Your task to perform on an android device: toggle javascript in the chrome app Image 0: 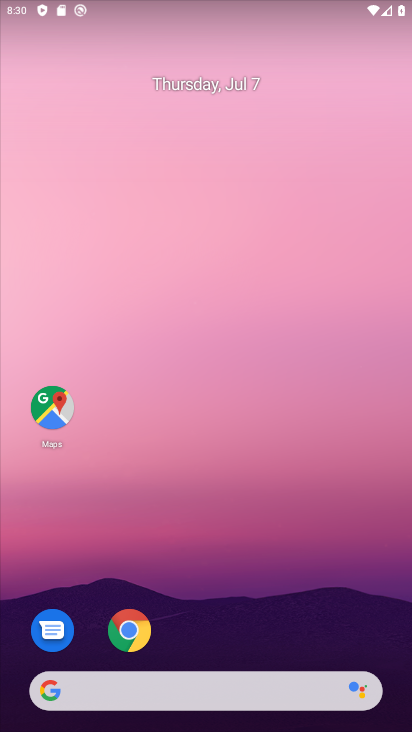
Step 0: drag from (204, 606) to (214, 197)
Your task to perform on an android device: toggle javascript in the chrome app Image 1: 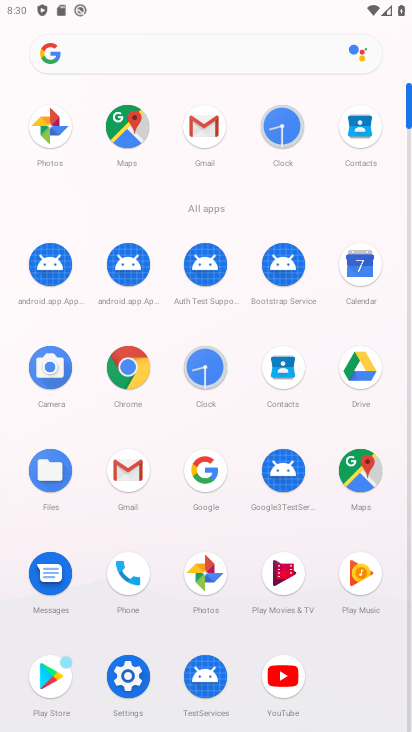
Step 1: click (119, 366)
Your task to perform on an android device: toggle javascript in the chrome app Image 2: 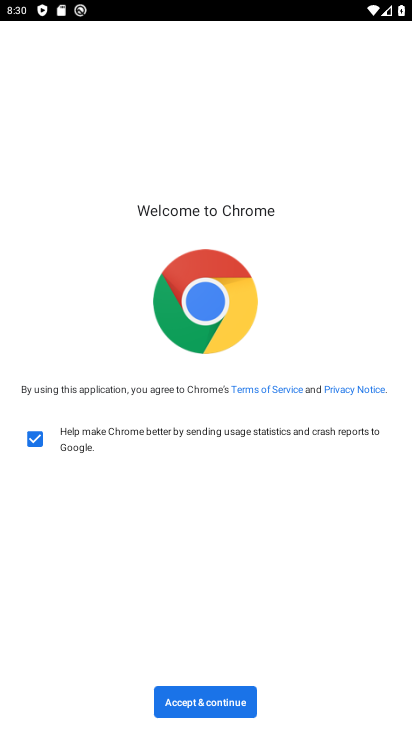
Step 2: click (192, 712)
Your task to perform on an android device: toggle javascript in the chrome app Image 3: 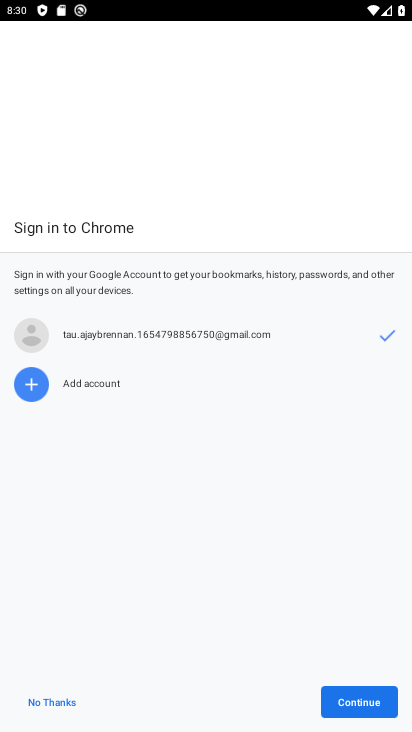
Step 3: click (329, 691)
Your task to perform on an android device: toggle javascript in the chrome app Image 4: 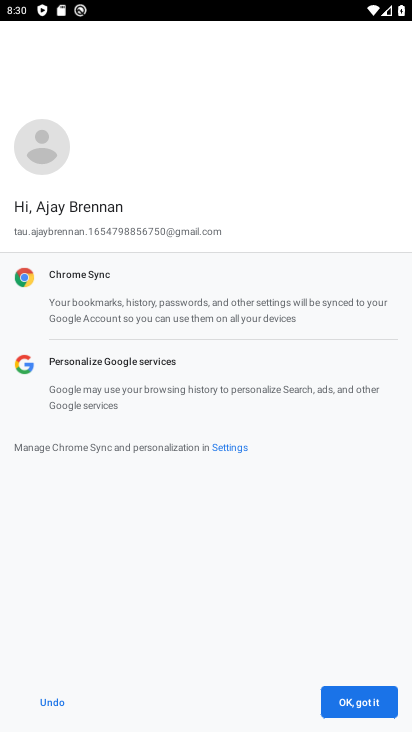
Step 4: click (358, 707)
Your task to perform on an android device: toggle javascript in the chrome app Image 5: 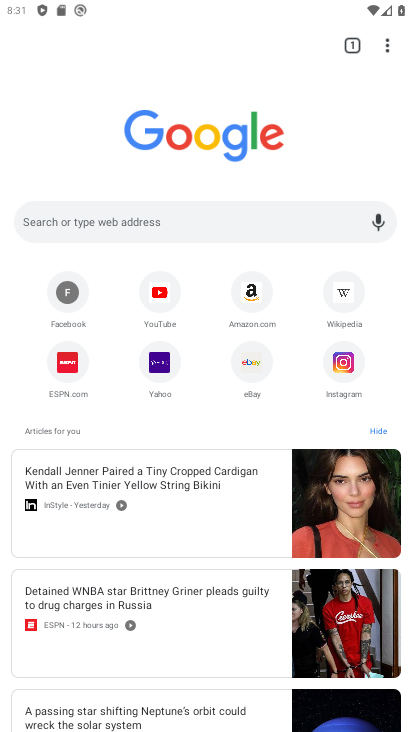
Step 5: click (385, 44)
Your task to perform on an android device: toggle javascript in the chrome app Image 6: 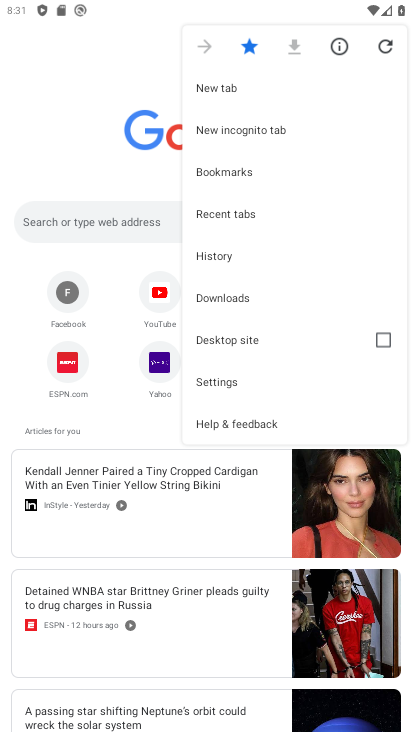
Step 6: click (214, 383)
Your task to perform on an android device: toggle javascript in the chrome app Image 7: 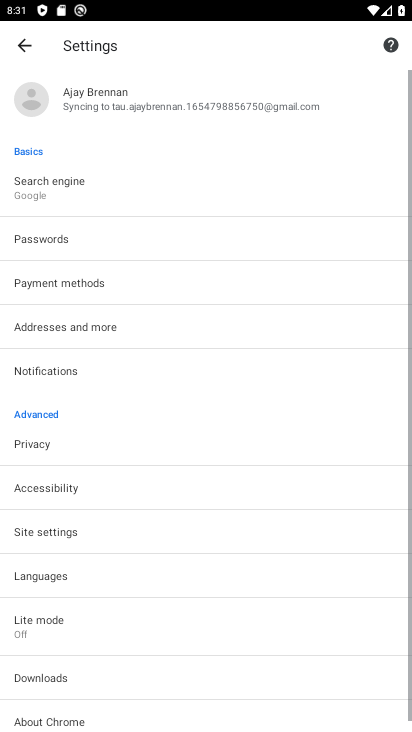
Step 7: drag from (176, 602) to (162, 351)
Your task to perform on an android device: toggle javascript in the chrome app Image 8: 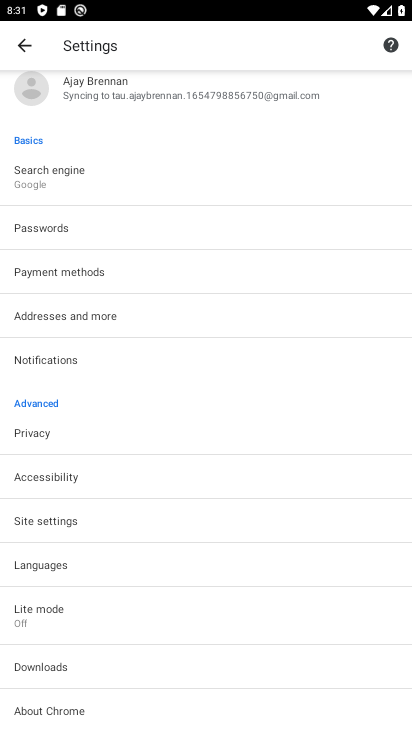
Step 8: click (58, 528)
Your task to perform on an android device: toggle javascript in the chrome app Image 9: 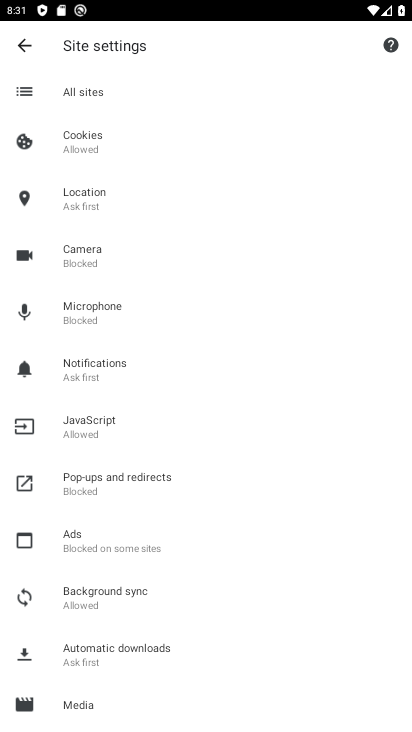
Step 9: click (106, 432)
Your task to perform on an android device: toggle javascript in the chrome app Image 10: 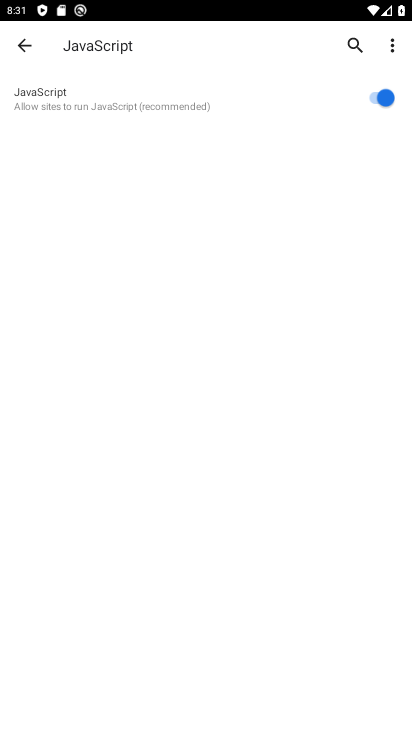
Step 10: click (380, 96)
Your task to perform on an android device: toggle javascript in the chrome app Image 11: 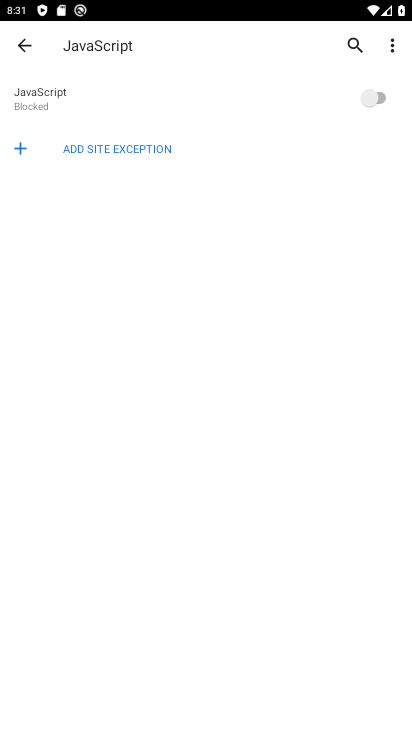
Step 11: task complete